Your task to perform on an android device: turn on the 24-hour format for clock Image 0: 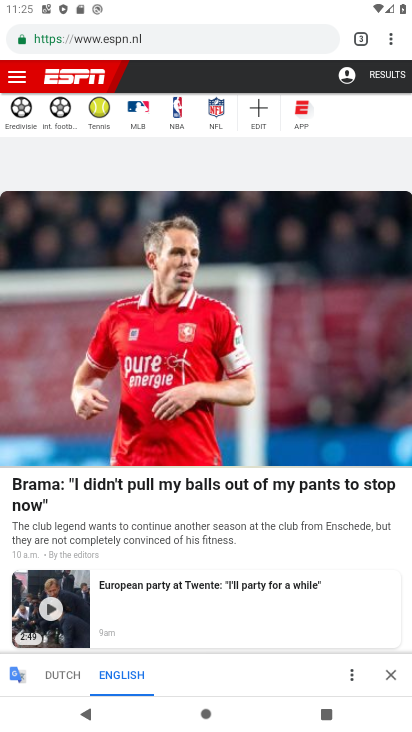
Step 0: press home button
Your task to perform on an android device: turn on the 24-hour format for clock Image 1: 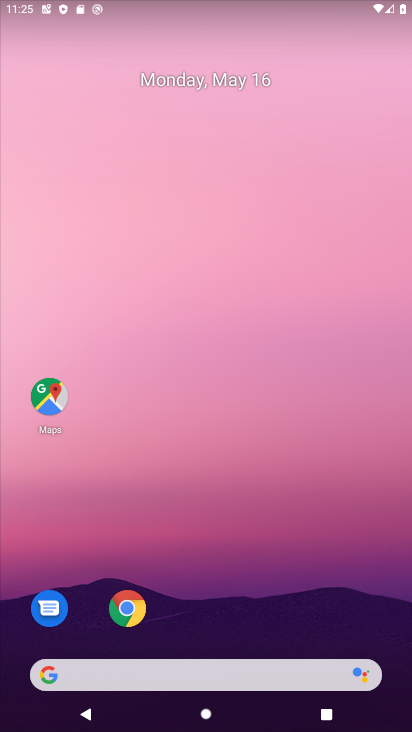
Step 1: drag from (175, 670) to (298, 173)
Your task to perform on an android device: turn on the 24-hour format for clock Image 2: 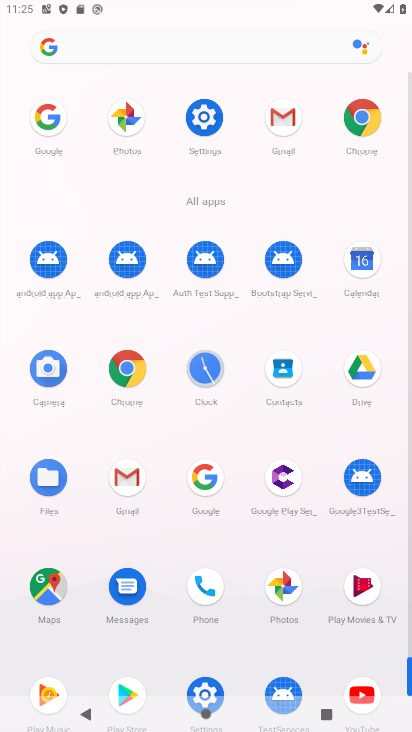
Step 2: click (203, 372)
Your task to perform on an android device: turn on the 24-hour format for clock Image 3: 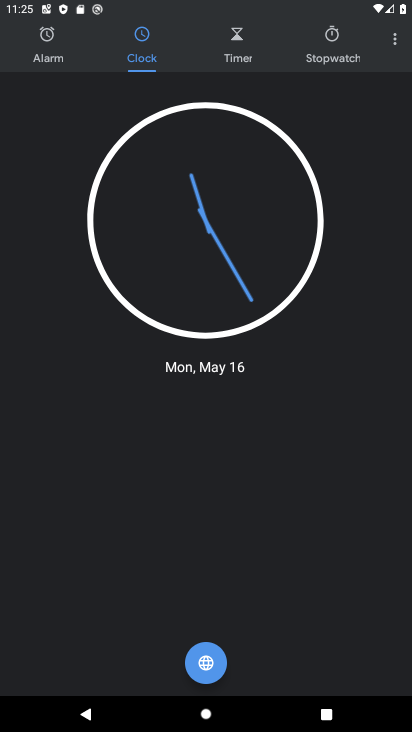
Step 3: click (395, 45)
Your task to perform on an android device: turn on the 24-hour format for clock Image 4: 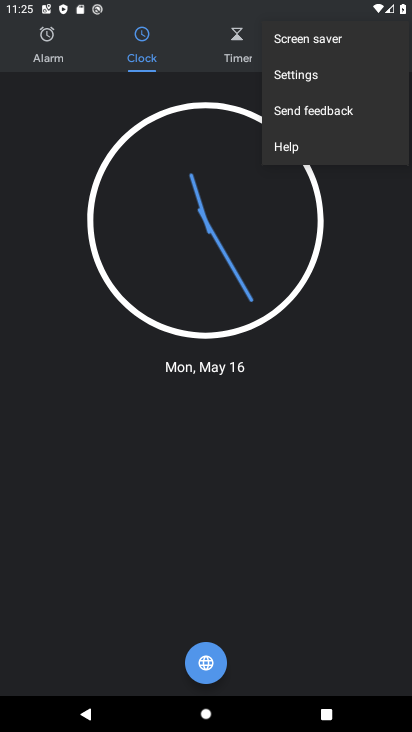
Step 4: click (316, 77)
Your task to perform on an android device: turn on the 24-hour format for clock Image 5: 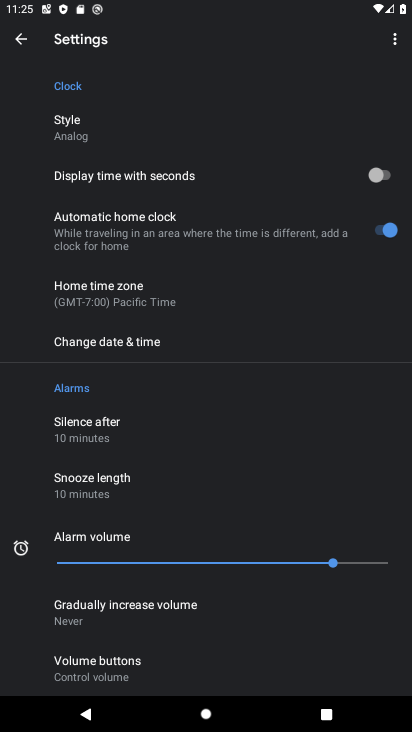
Step 5: click (113, 346)
Your task to perform on an android device: turn on the 24-hour format for clock Image 6: 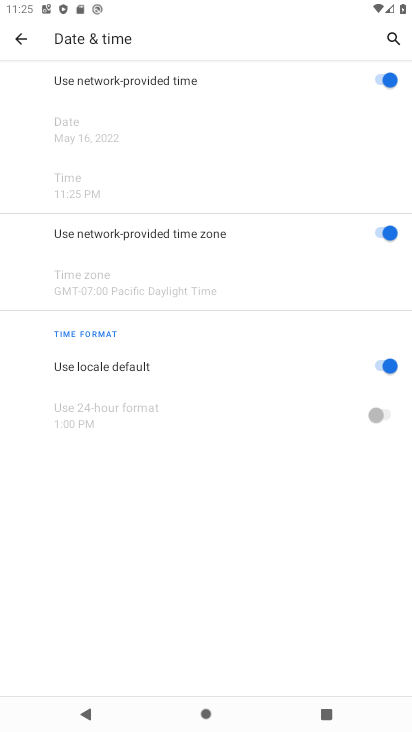
Step 6: click (378, 366)
Your task to perform on an android device: turn on the 24-hour format for clock Image 7: 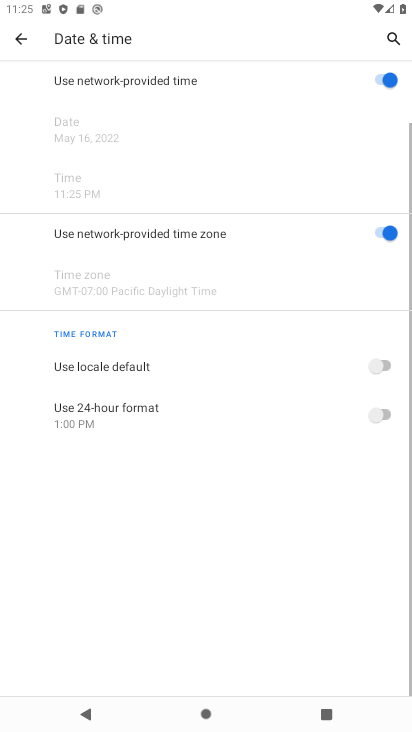
Step 7: click (388, 415)
Your task to perform on an android device: turn on the 24-hour format for clock Image 8: 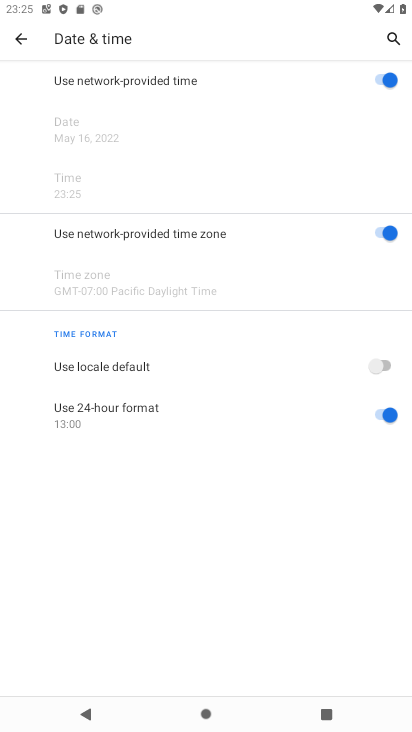
Step 8: task complete